Your task to perform on an android device: toggle data saver in the chrome app Image 0: 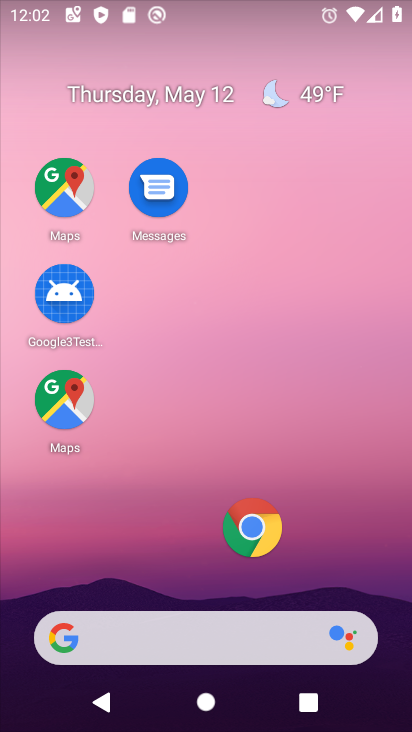
Step 0: click (241, 536)
Your task to perform on an android device: toggle data saver in the chrome app Image 1: 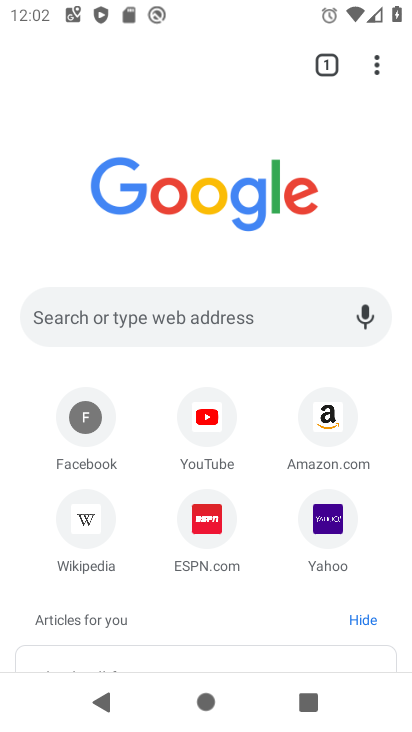
Step 1: click (379, 73)
Your task to perform on an android device: toggle data saver in the chrome app Image 2: 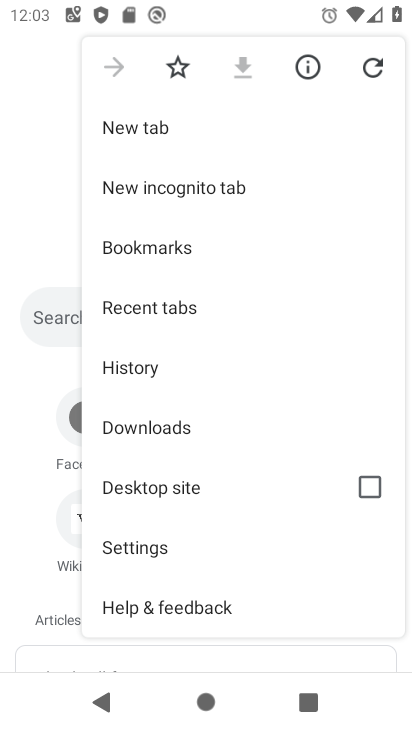
Step 2: click (130, 547)
Your task to perform on an android device: toggle data saver in the chrome app Image 3: 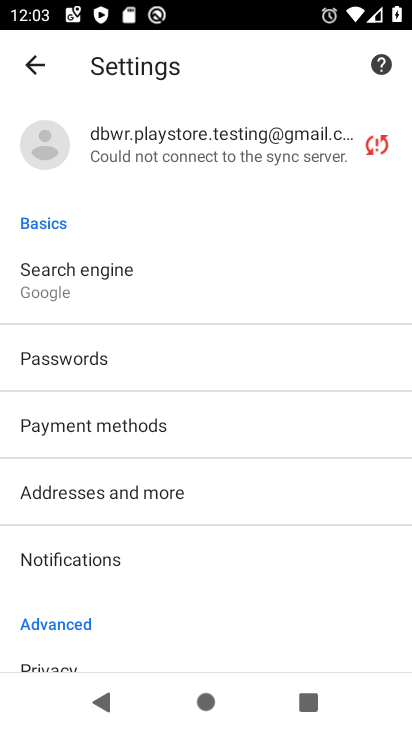
Step 3: drag from (212, 631) to (232, 285)
Your task to perform on an android device: toggle data saver in the chrome app Image 4: 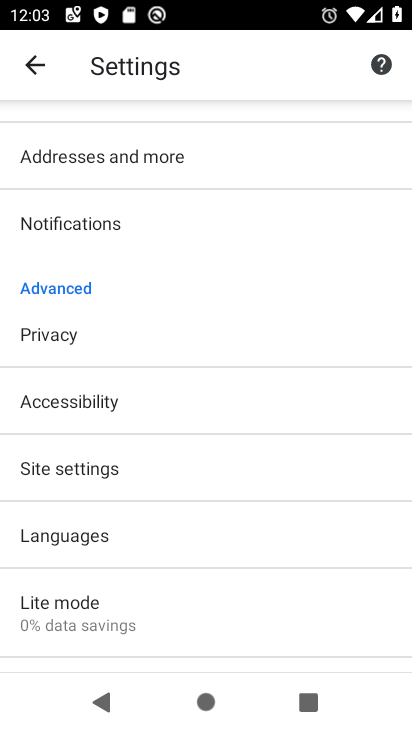
Step 4: click (41, 452)
Your task to perform on an android device: toggle data saver in the chrome app Image 5: 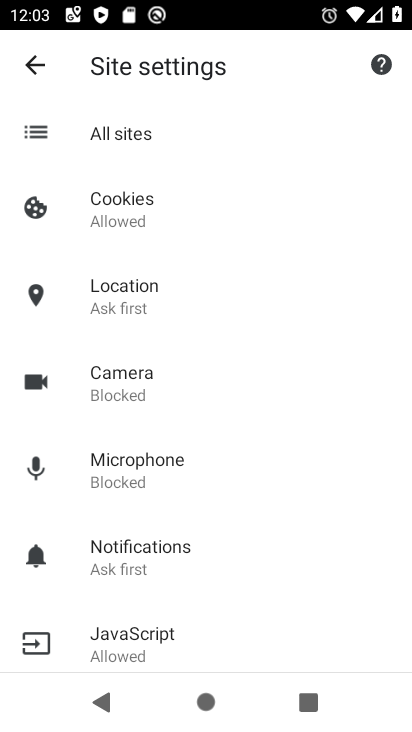
Step 5: click (42, 70)
Your task to perform on an android device: toggle data saver in the chrome app Image 6: 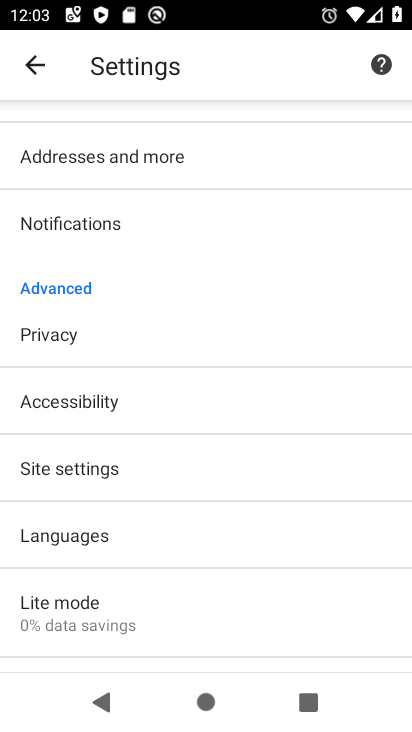
Step 6: click (51, 639)
Your task to perform on an android device: toggle data saver in the chrome app Image 7: 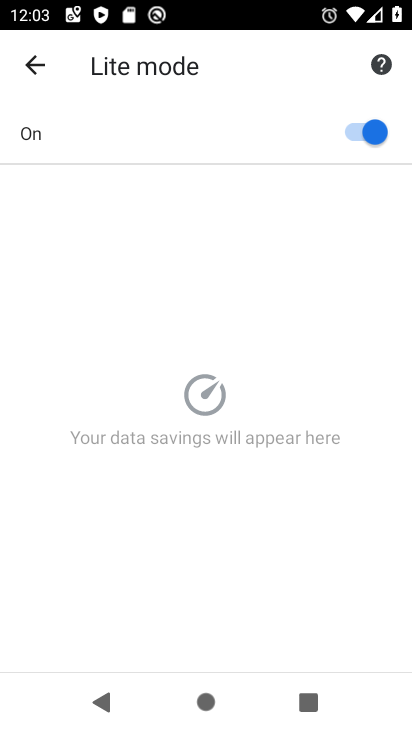
Step 7: click (354, 138)
Your task to perform on an android device: toggle data saver in the chrome app Image 8: 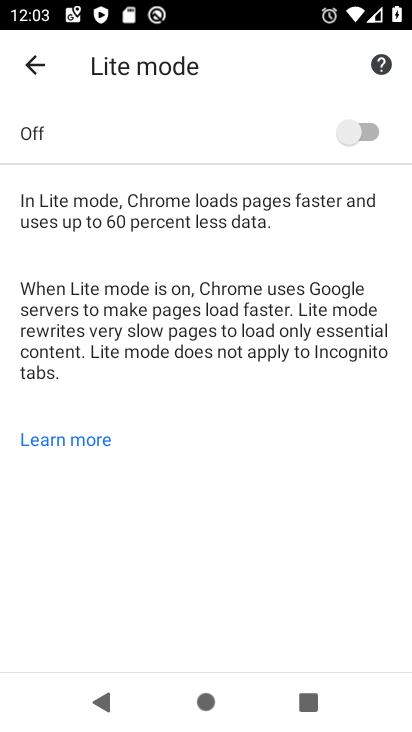
Step 8: task complete